Your task to perform on an android device: turn on improve location accuracy Image 0: 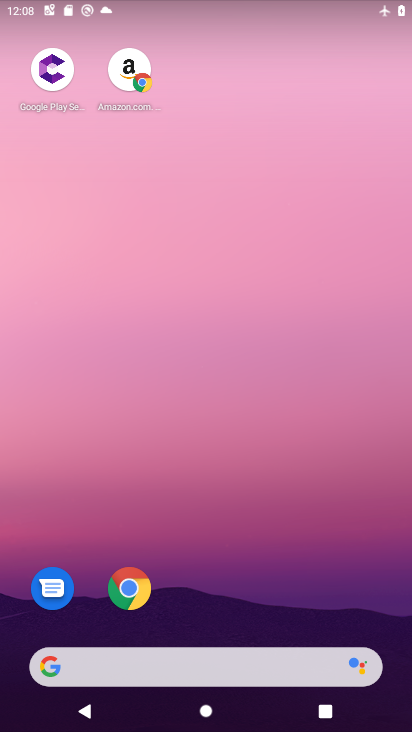
Step 0: drag from (251, 656) to (307, 0)
Your task to perform on an android device: turn on improve location accuracy Image 1: 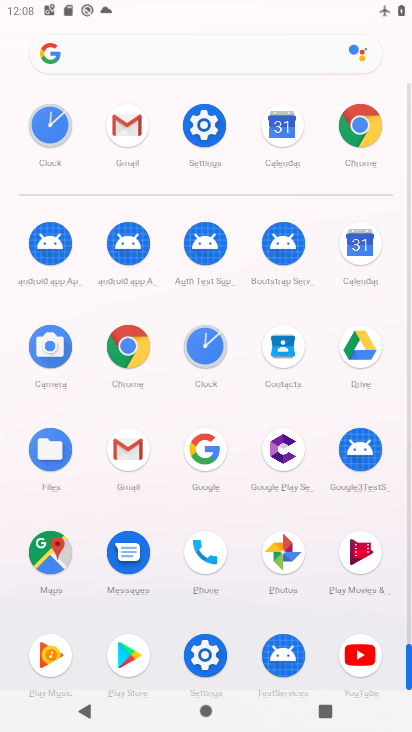
Step 1: click (204, 151)
Your task to perform on an android device: turn on improve location accuracy Image 2: 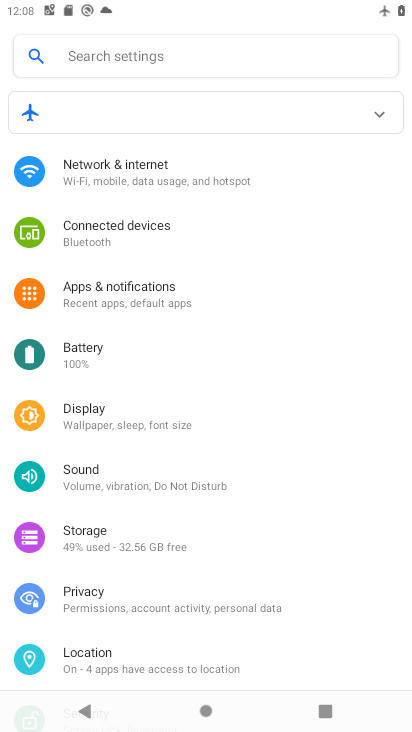
Step 2: click (104, 658)
Your task to perform on an android device: turn on improve location accuracy Image 3: 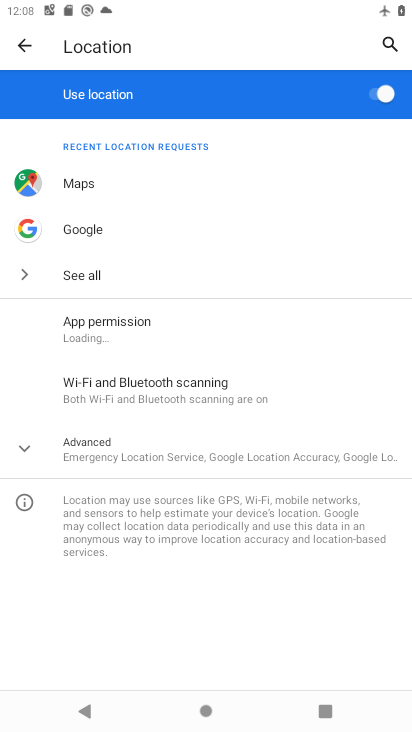
Step 3: click (206, 453)
Your task to perform on an android device: turn on improve location accuracy Image 4: 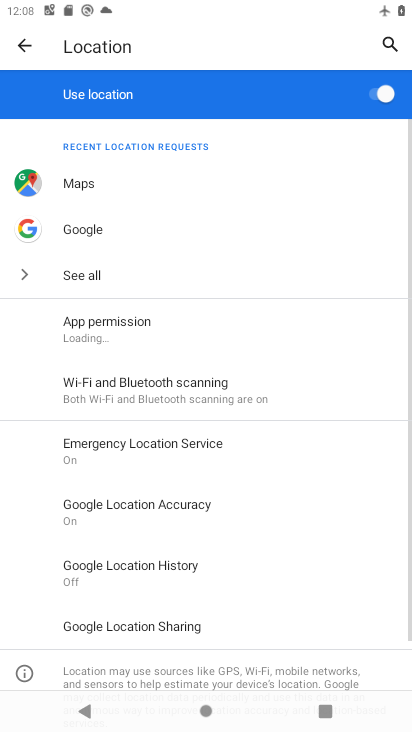
Step 4: click (188, 519)
Your task to perform on an android device: turn on improve location accuracy Image 5: 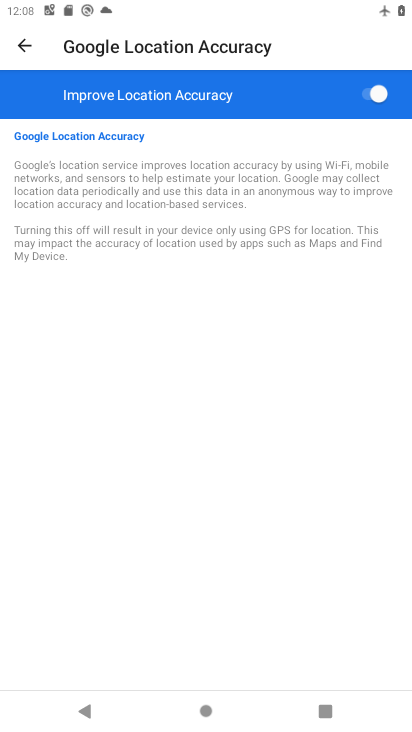
Step 5: task complete